Your task to perform on an android device: Open Chrome and go to settings Image 0: 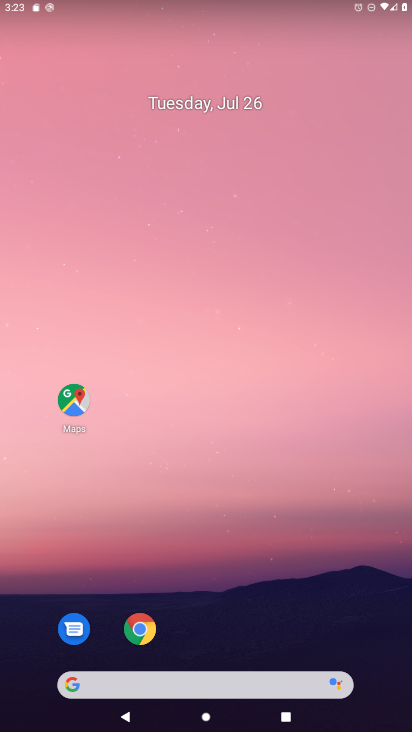
Step 0: click (149, 621)
Your task to perform on an android device: Open Chrome and go to settings Image 1: 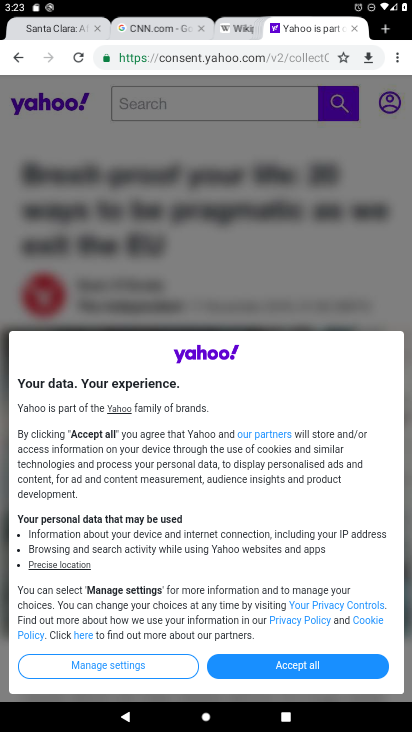
Step 1: click (396, 59)
Your task to perform on an android device: Open Chrome and go to settings Image 2: 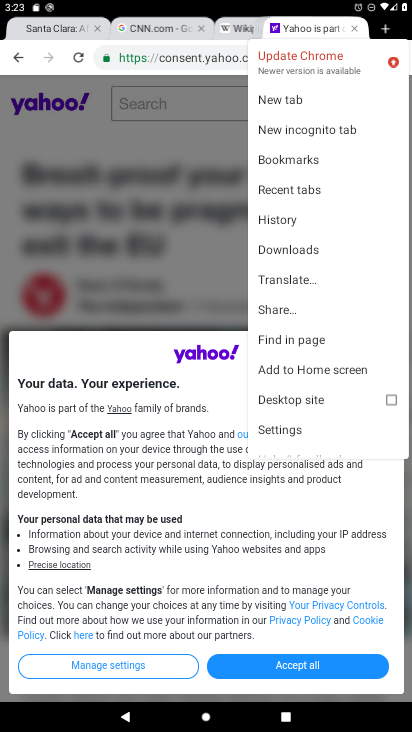
Step 2: click (284, 431)
Your task to perform on an android device: Open Chrome and go to settings Image 3: 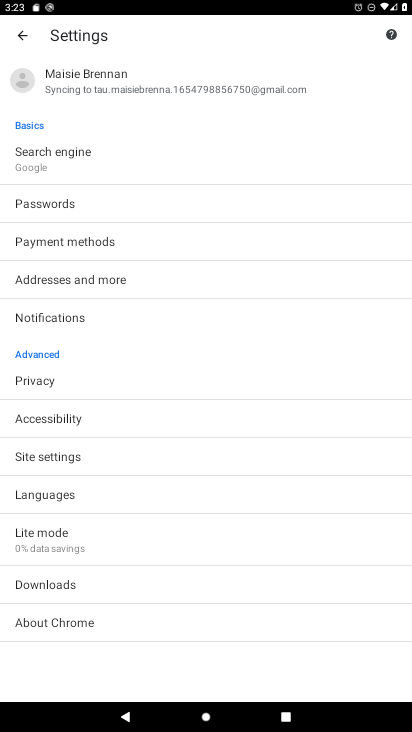
Step 3: task complete